Your task to perform on an android device: Search for pizza restaurants on Maps Image 0: 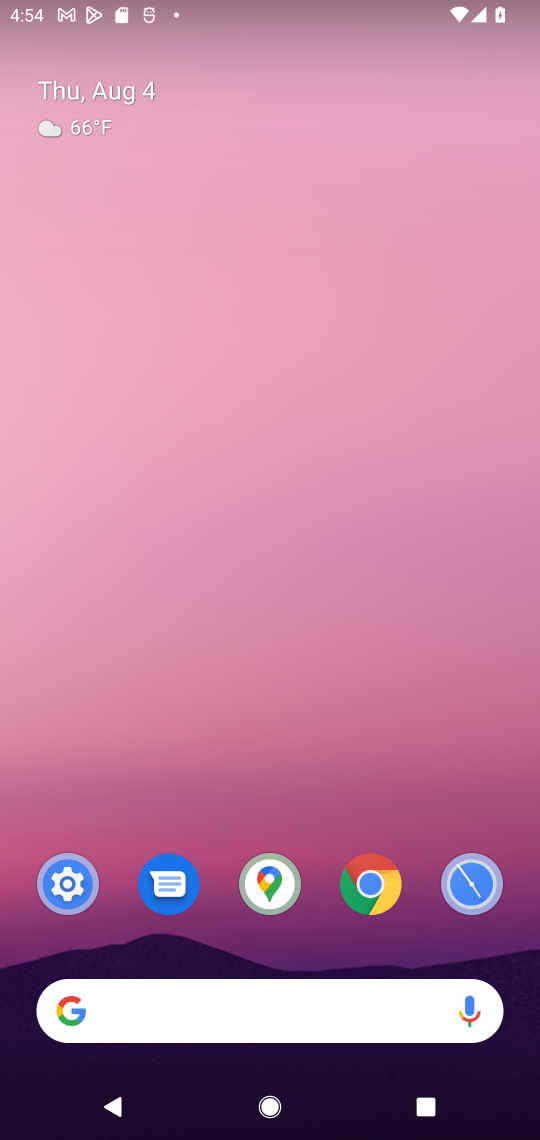
Step 0: click (281, 889)
Your task to perform on an android device: Search for pizza restaurants on Maps Image 1: 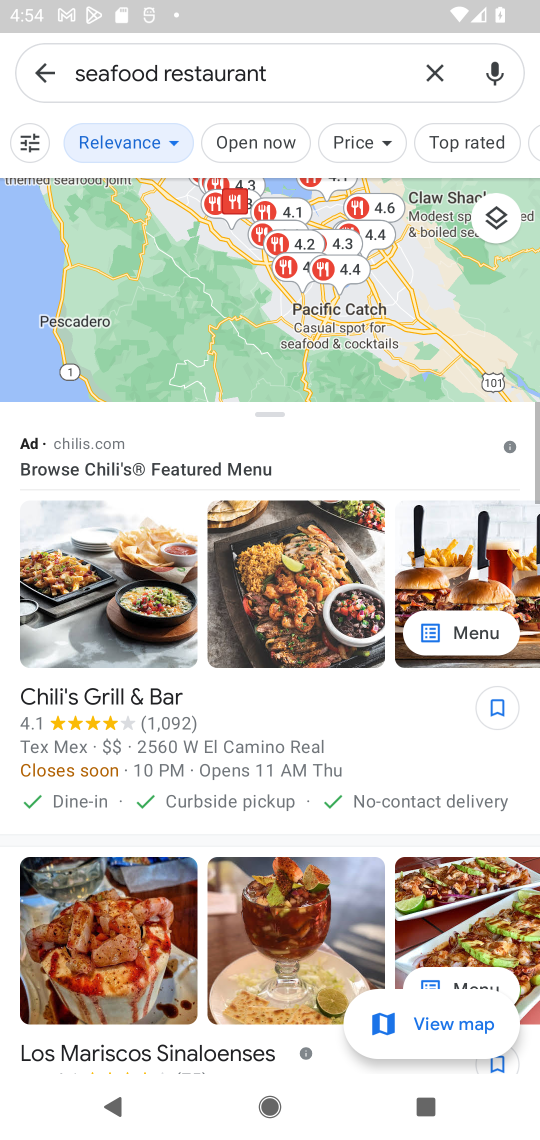
Step 1: click (416, 78)
Your task to perform on an android device: Search for pizza restaurants on Maps Image 2: 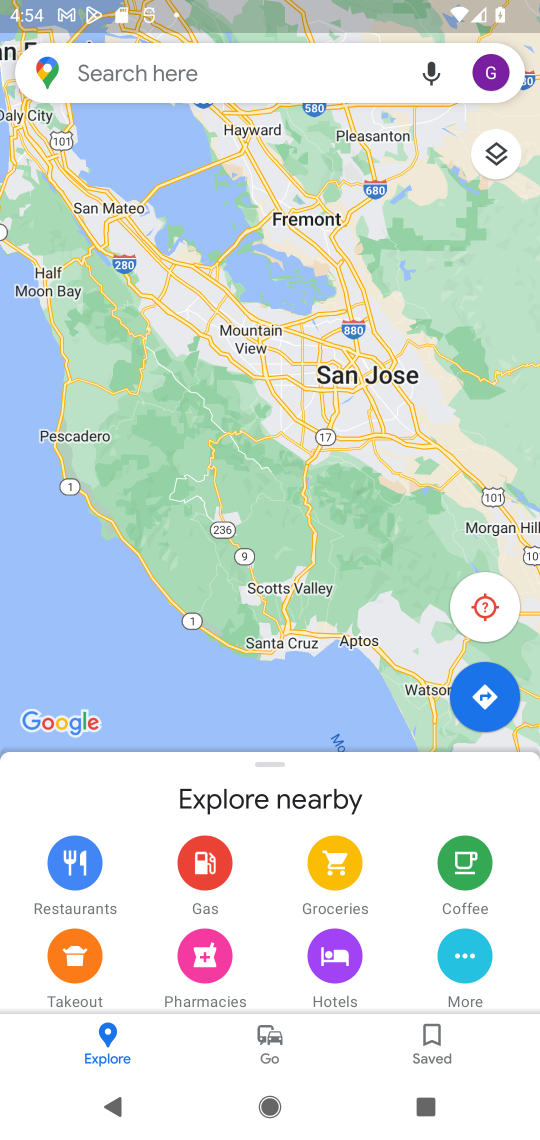
Step 2: click (321, 62)
Your task to perform on an android device: Search for pizza restaurants on Maps Image 3: 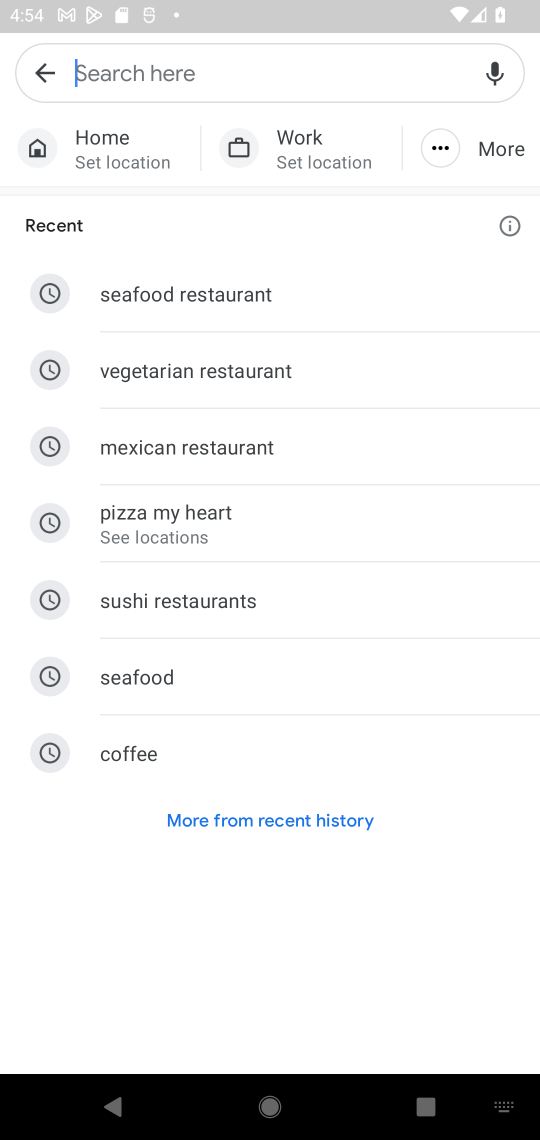
Step 3: type "pizza"
Your task to perform on an android device: Search for pizza restaurants on Maps Image 4: 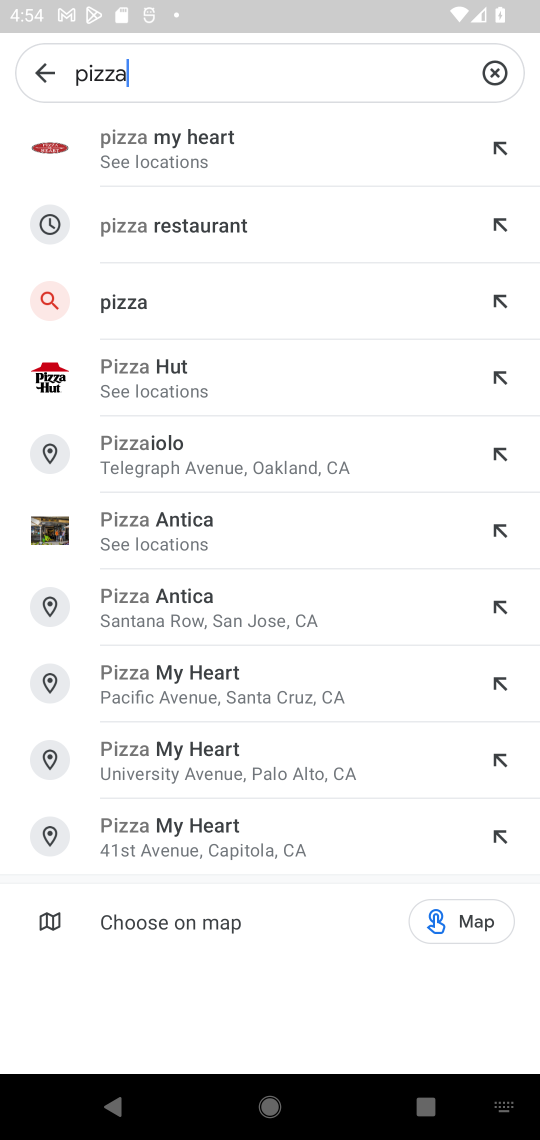
Step 4: click (190, 236)
Your task to perform on an android device: Search for pizza restaurants on Maps Image 5: 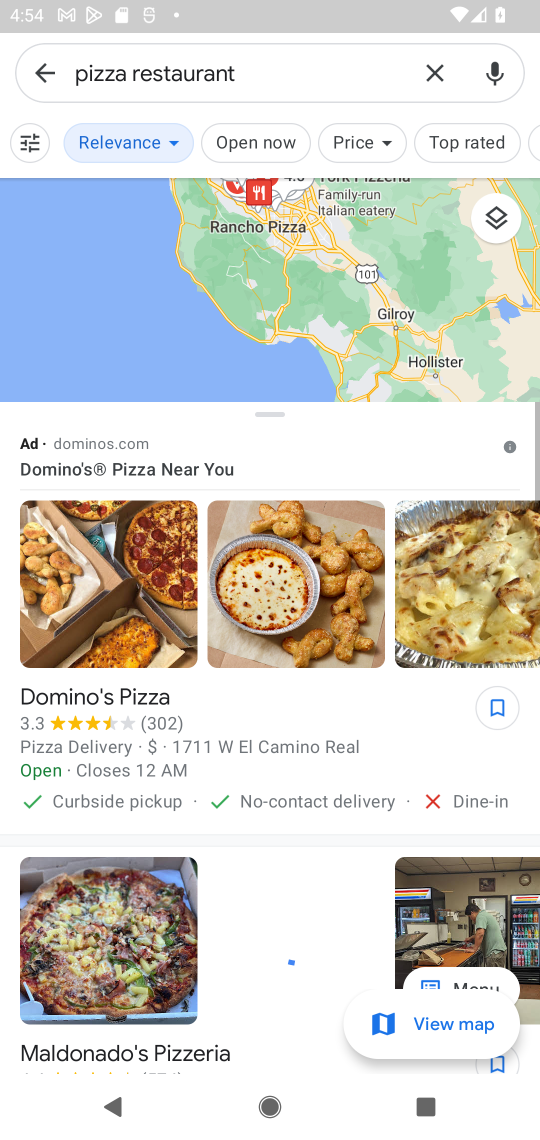
Step 5: task complete